Your task to perform on an android device: turn on bluetooth scan Image 0: 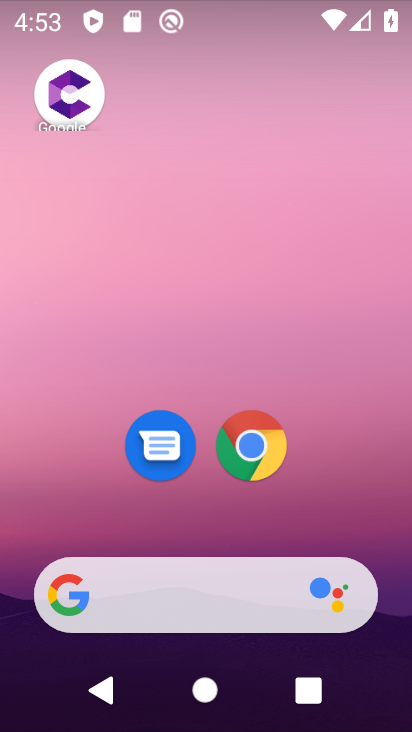
Step 0: drag from (362, 569) to (116, 45)
Your task to perform on an android device: turn on bluetooth scan Image 1: 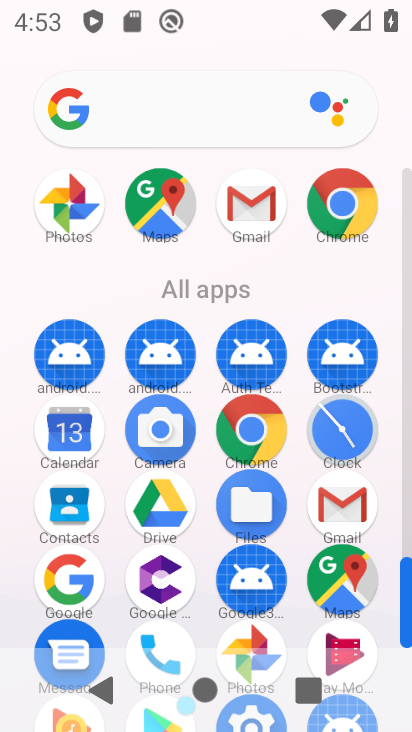
Step 1: drag from (293, 457) to (291, 184)
Your task to perform on an android device: turn on bluetooth scan Image 2: 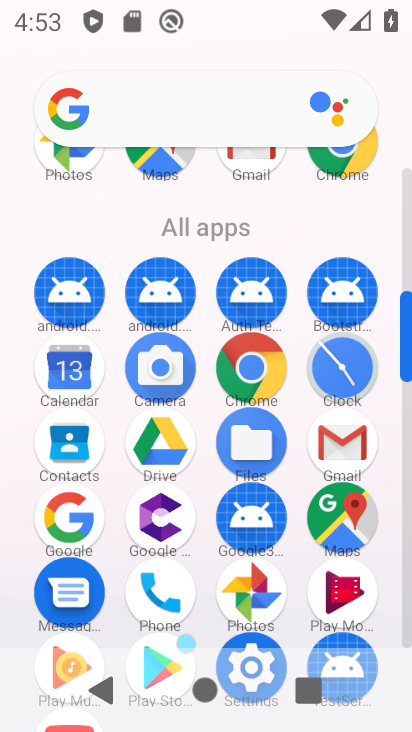
Step 2: drag from (294, 349) to (350, 3)
Your task to perform on an android device: turn on bluetooth scan Image 3: 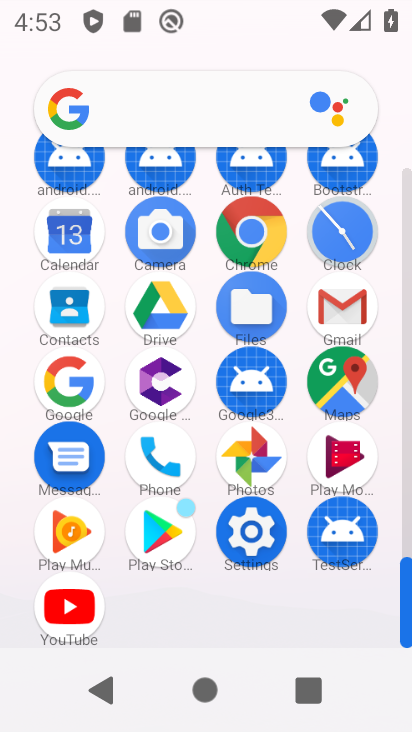
Step 3: drag from (320, 278) to (309, 180)
Your task to perform on an android device: turn on bluetooth scan Image 4: 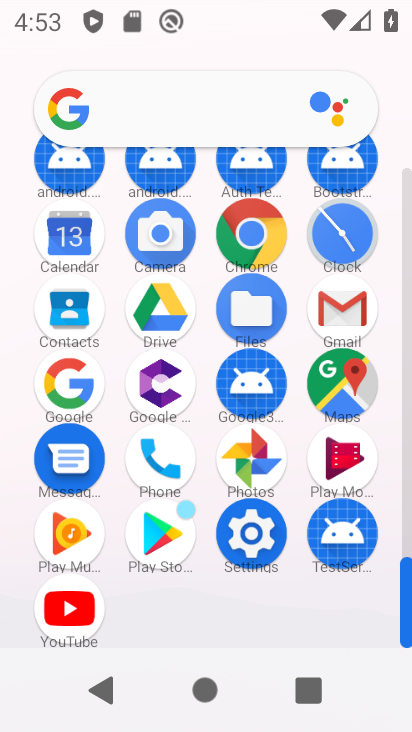
Step 4: click (250, 537)
Your task to perform on an android device: turn on bluetooth scan Image 5: 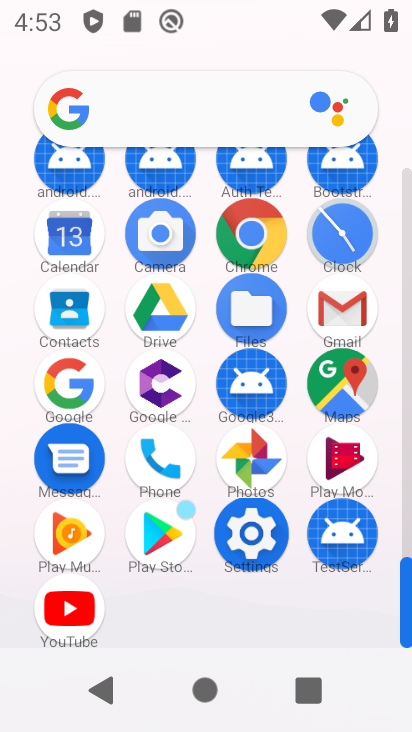
Step 5: click (250, 537)
Your task to perform on an android device: turn on bluetooth scan Image 6: 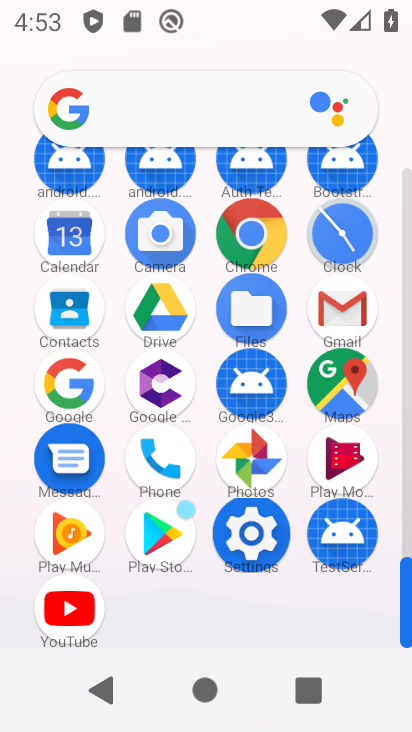
Step 6: click (251, 536)
Your task to perform on an android device: turn on bluetooth scan Image 7: 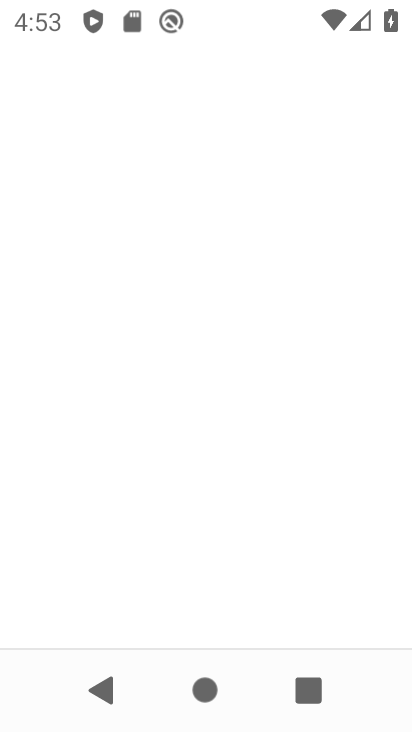
Step 7: click (251, 536)
Your task to perform on an android device: turn on bluetooth scan Image 8: 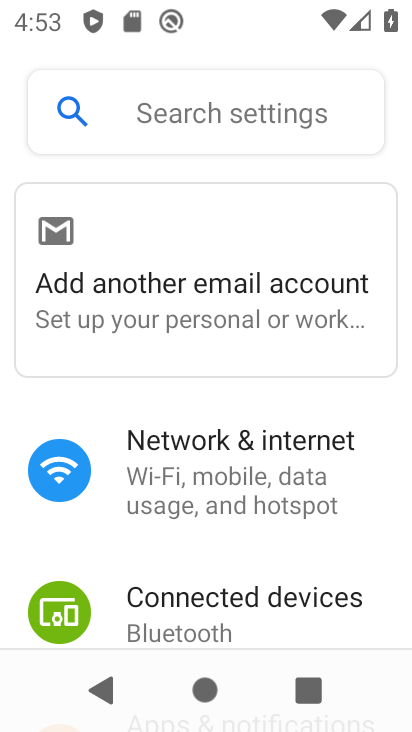
Step 8: drag from (213, 508) to (149, 253)
Your task to perform on an android device: turn on bluetooth scan Image 9: 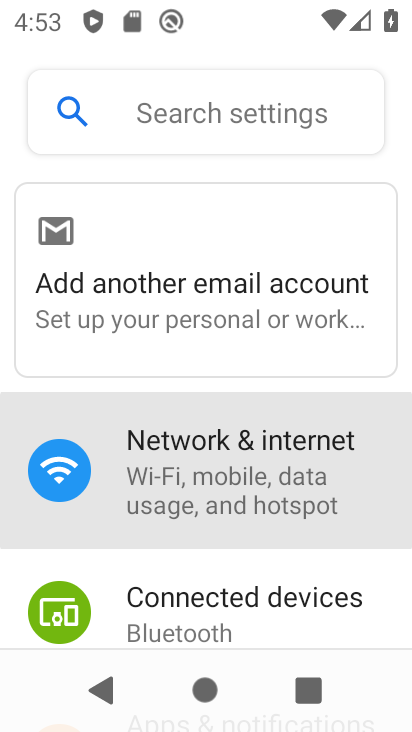
Step 9: drag from (194, 446) to (174, 121)
Your task to perform on an android device: turn on bluetooth scan Image 10: 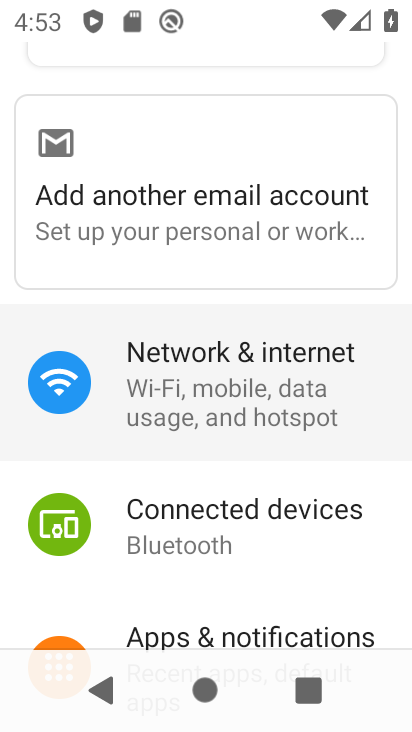
Step 10: drag from (215, 428) to (215, 297)
Your task to perform on an android device: turn on bluetooth scan Image 11: 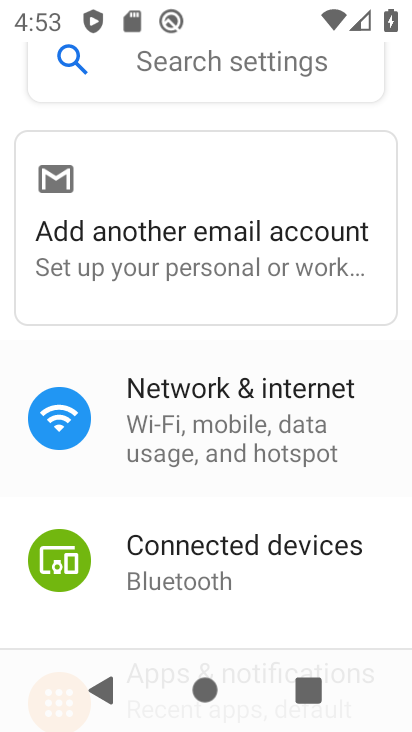
Step 11: drag from (270, 476) to (211, 241)
Your task to perform on an android device: turn on bluetooth scan Image 12: 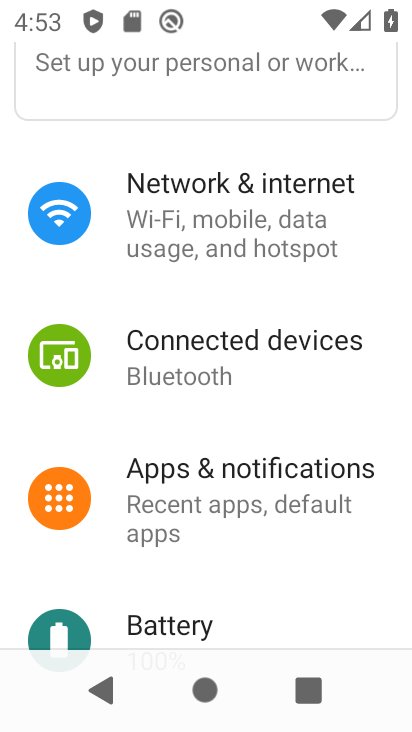
Step 12: drag from (249, 484) to (237, 270)
Your task to perform on an android device: turn on bluetooth scan Image 13: 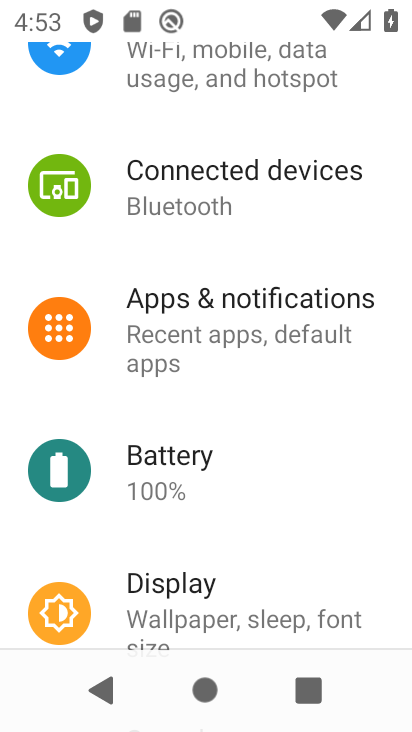
Step 13: drag from (186, 581) to (146, 198)
Your task to perform on an android device: turn on bluetooth scan Image 14: 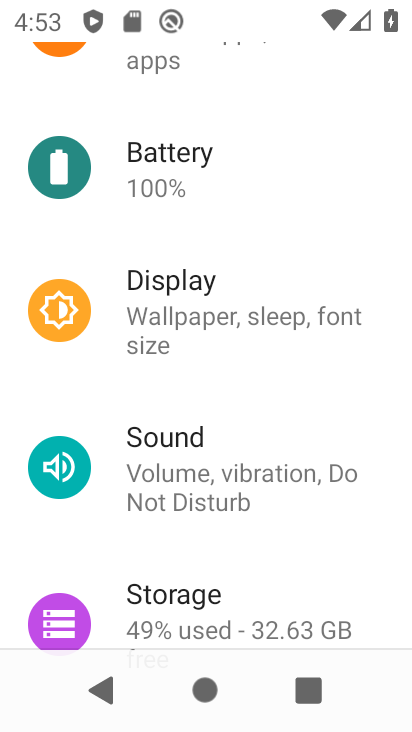
Step 14: drag from (220, 447) to (234, 117)
Your task to perform on an android device: turn on bluetooth scan Image 15: 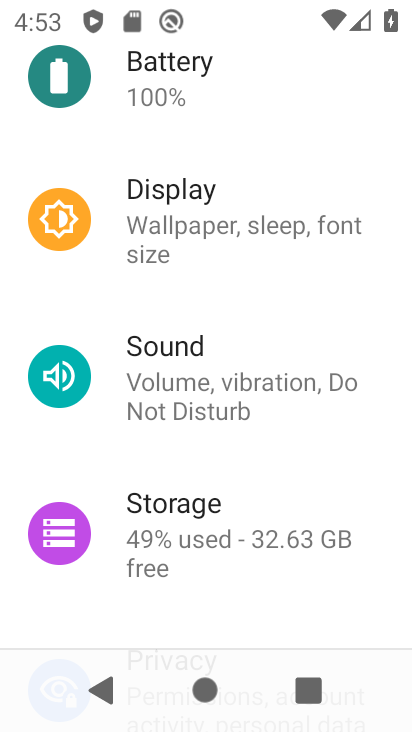
Step 15: drag from (243, 325) to (248, 75)
Your task to perform on an android device: turn on bluetooth scan Image 16: 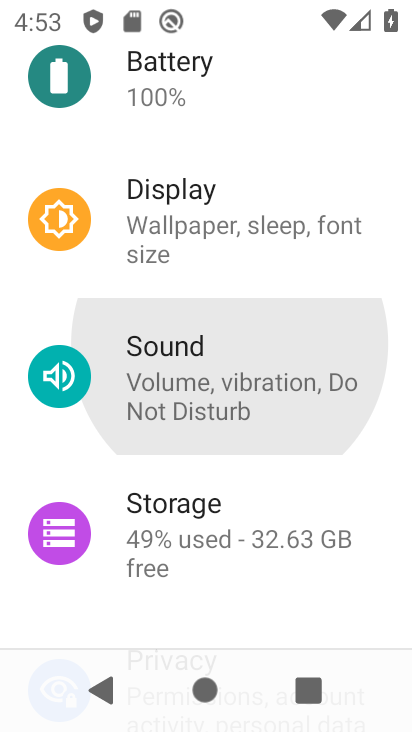
Step 16: drag from (238, 511) to (238, 66)
Your task to perform on an android device: turn on bluetooth scan Image 17: 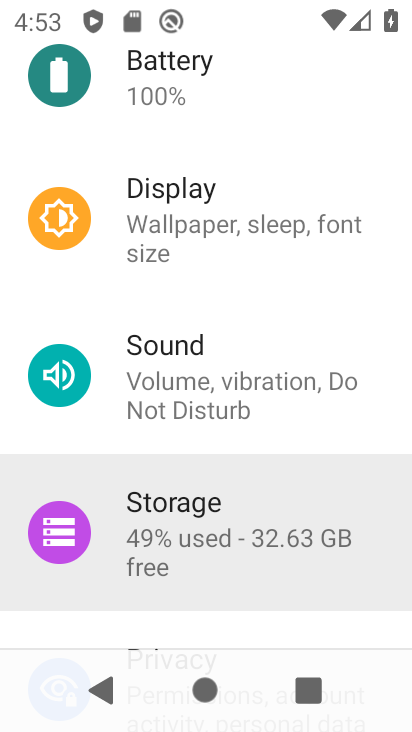
Step 17: drag from (198, 498) to (165, 0)
Your task to perform on an android device: turn on bluetooth scan Image 18: 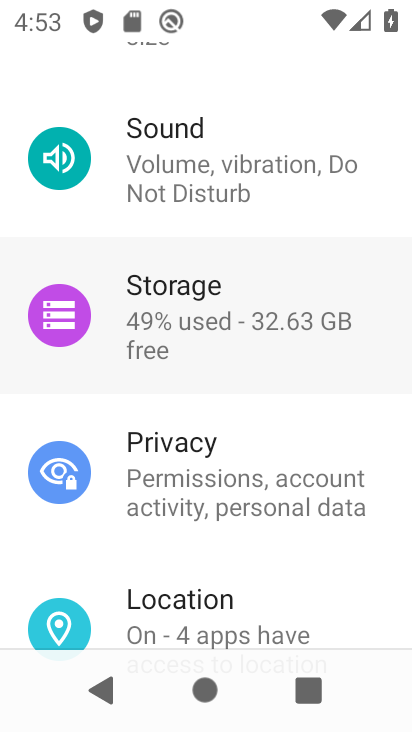
Step 18: drag from (132, 491) to (105, 4)
Your task to perform on an android device: turn on bluetooth scan Image 19: 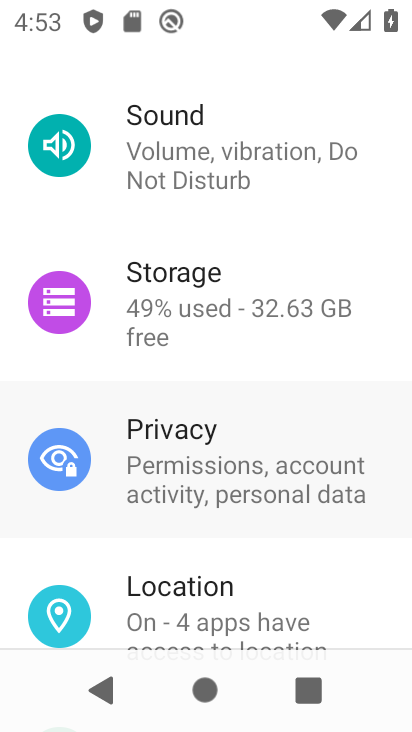
Step 19: drag from (203, 301) to (200, 80)
Your task to perform on an android device: turn on bluetooth scan Image 20: 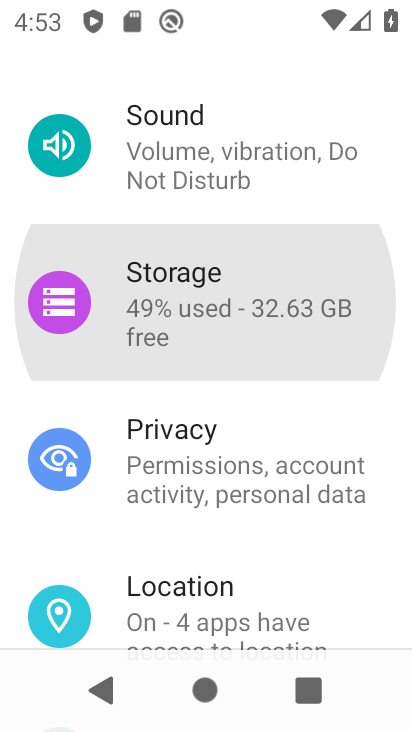
Step 20: drag from (203, 549) to (230, 167)
Your task to perform on an android device: turn on bluetooth scan Image 21: 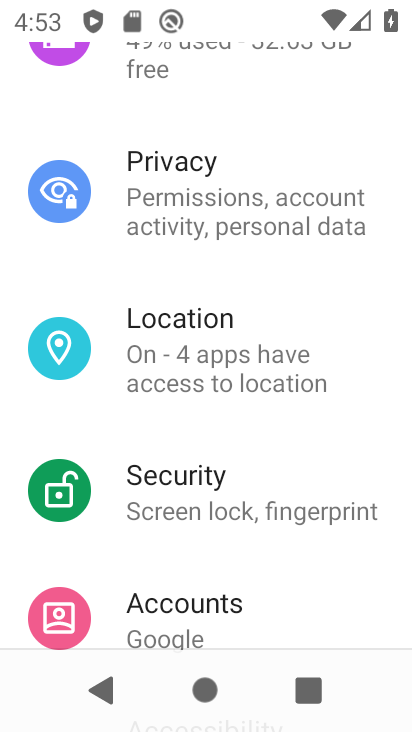
Step 21: drag from (220, 357) to (213, 166)
Your task to perform on an android device: turn on bluetooth scan Image 22: 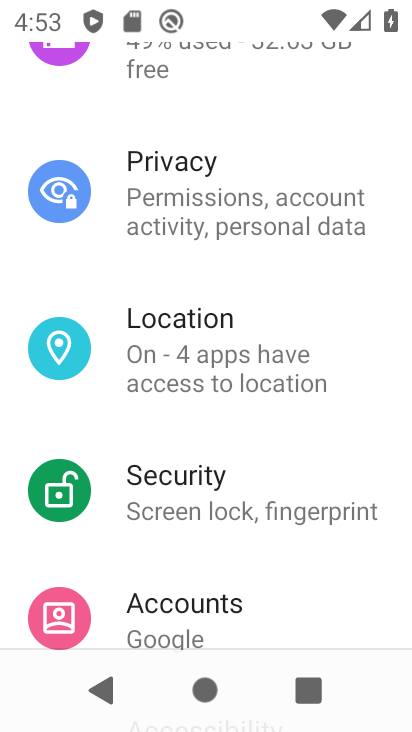
Step 22: drag from (206, 432) to (175, 224)
Your task to perform on an android device: turn on bluetooth scan Image 23: 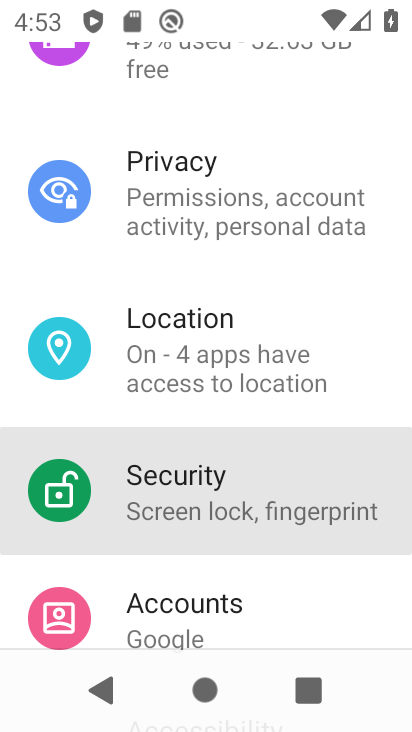
Step 23: drag from (167, 561) to (161, 227)
Your task to perform on an android device: turn on bluetooth scan Image 24: 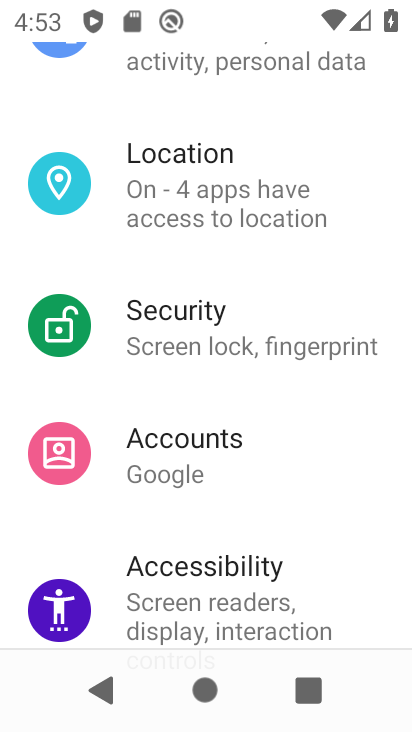
Step 24: click (197, 193)
Your task to perform on an android device: turn on bluetooth scan Image 25: 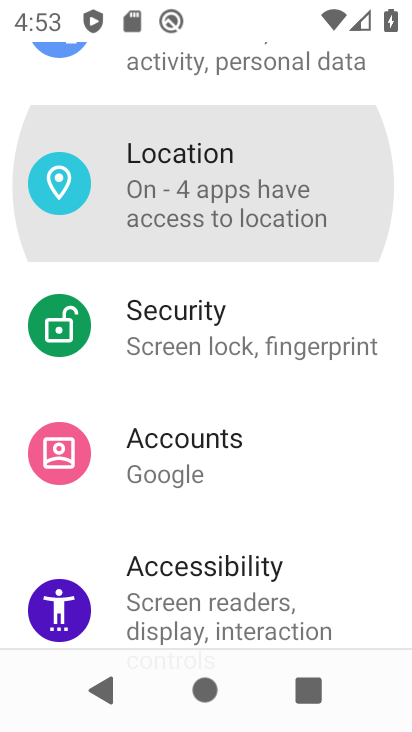
Step 25: click (197, 193)
Your task to perform on an android device: turn on bluetooth scan Image 26: 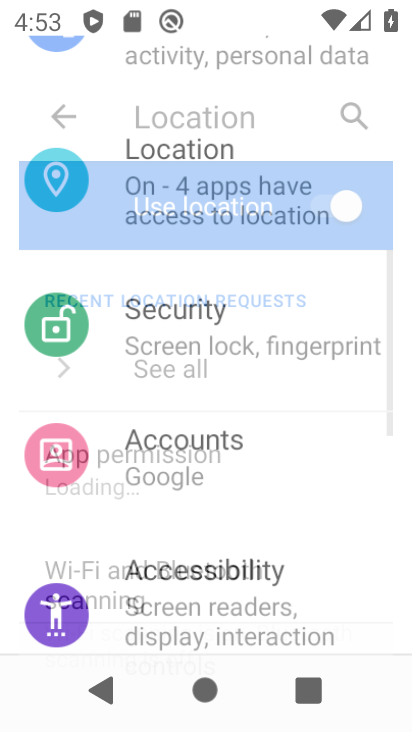
Step 26: click (197, 193)
Your task to perform on an android device: turn on bluetooth scan Image 27: 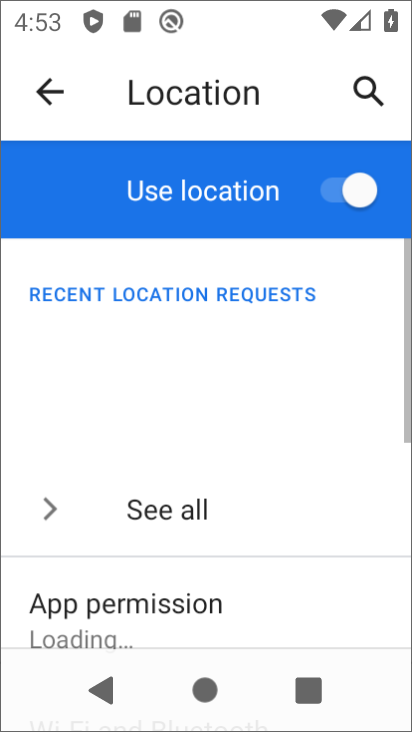
Step 27: click (197, 193)
Your task to perform on an android device: turn on bluetooth scan Image 28: 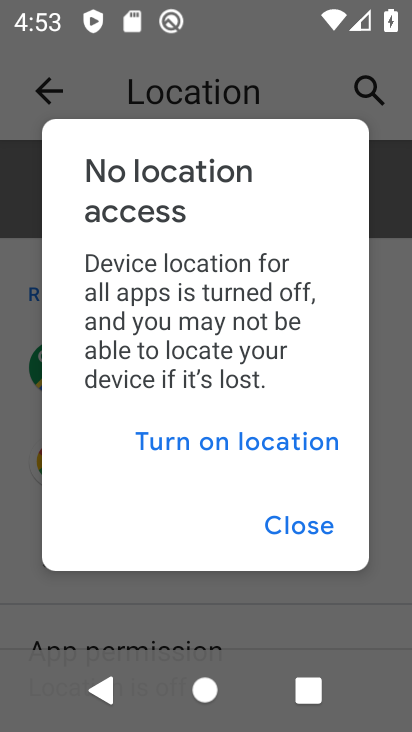
Step 28: drag from (194, 417) to (153, 166)
Your task to perform on an android device: turn on bluetooth scan Image 29: 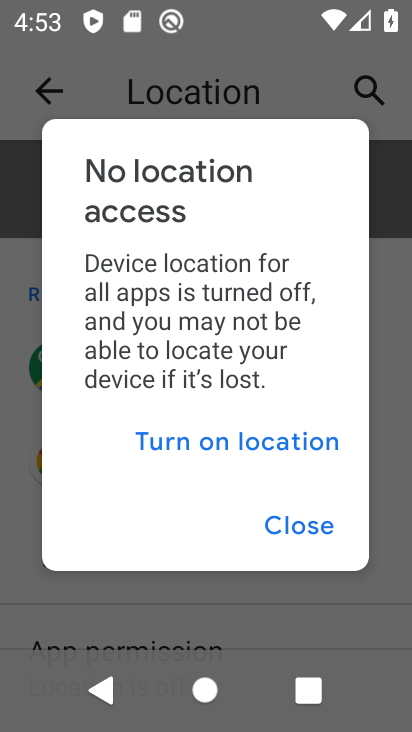
Step 29: click (306, 522)
Your task to perform on an android device: turn on bluetooth scan Image 30: 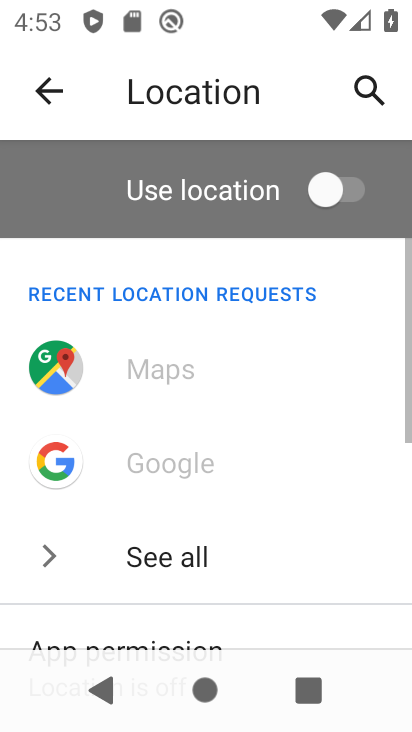
Step 30: drag from (235, 513) to (196, 222)
Your task to perform on an android device: turn on bluetooth scan Image 31: 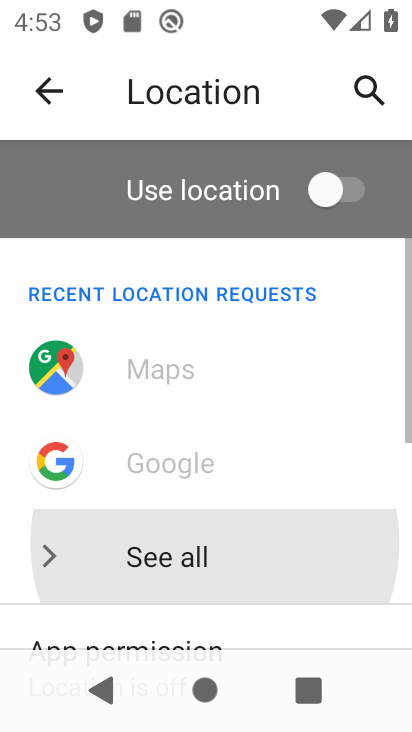
Step 31: drag from (231, 450) to (200, 190)
Your task to perform on an android device: turn on bluetooth scan Image 32: 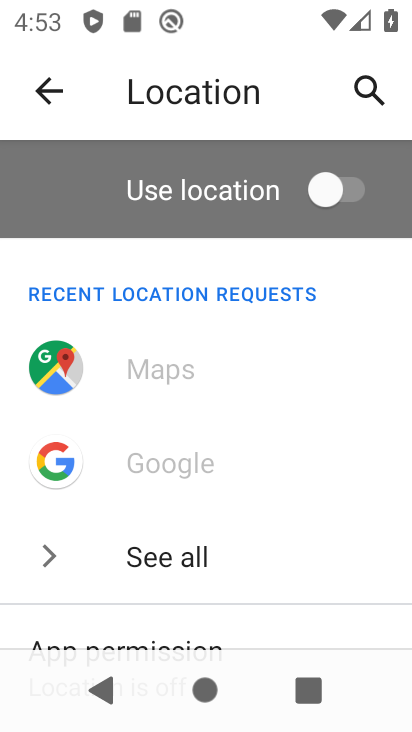
Step 32: drag from (265, 405) to (224, 164)
Your task to perform on an android device: turn on bluetooth scan Image 33: 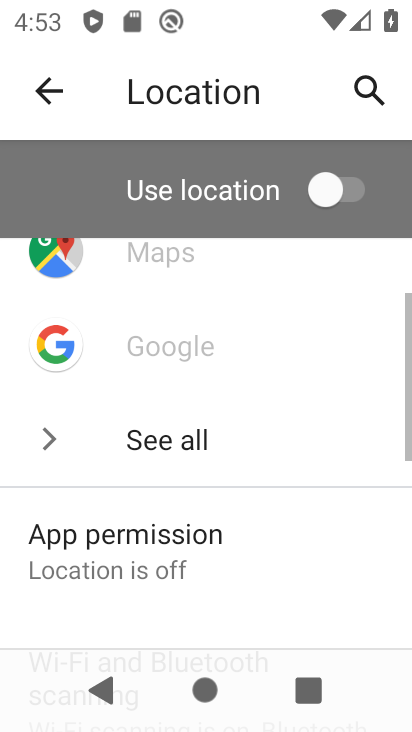
Step 33: drag from (202, 495) to (137, 65)
Your task to perform on an android device: turn on bluetooth scan Image 34: 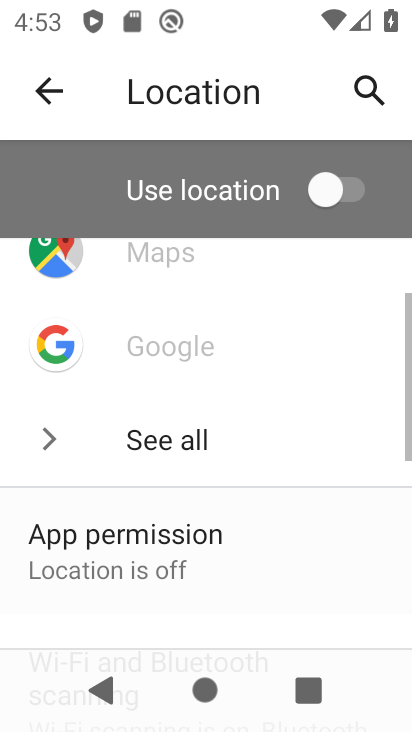
Step 34: drag from (136, 478) to (145, 171)
Your task to perform on an android device: turn on bluetooth scan Image 35: 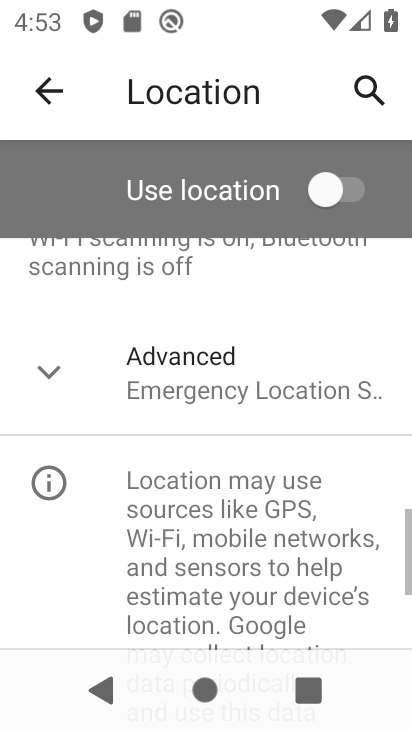
Step 35: drag from (187, 493) to (185, 129)
Your task to perform on an android device: turn on bluetooth scan Image 36: 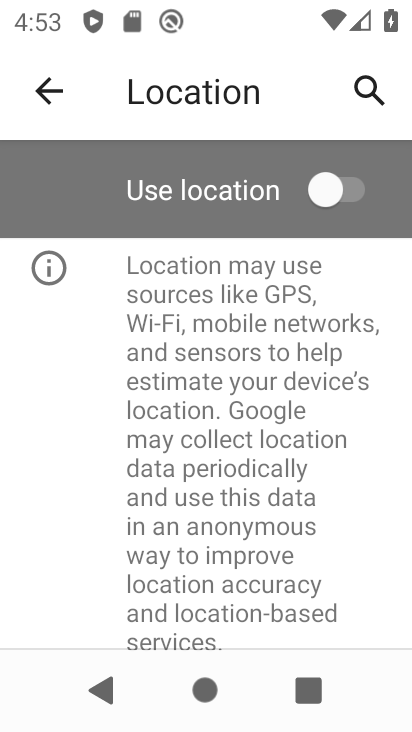
Step 36: drag from (208, 369) to (261, 646)
Your task to perform on an android device: turn on bluetooth scan Image 37: 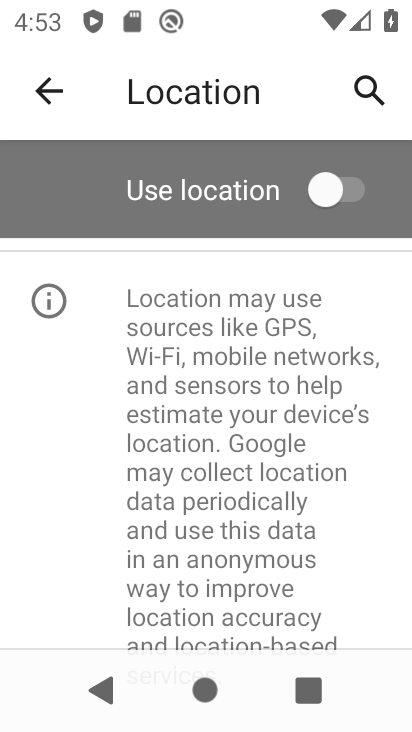
Step 37: click (221, 641)
Your task to perform on an android device: turn on bluetooth scan Image 38: 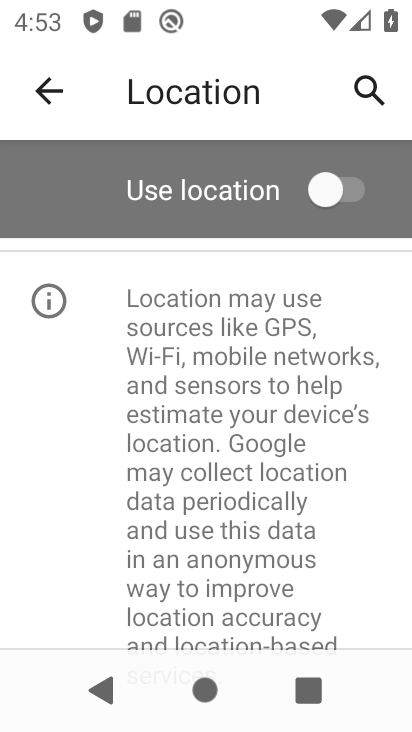
Step 38: drag from (200, 286) to (216, 653)
Your task to perform on an android device: turn on bluetooth scan Image 39: 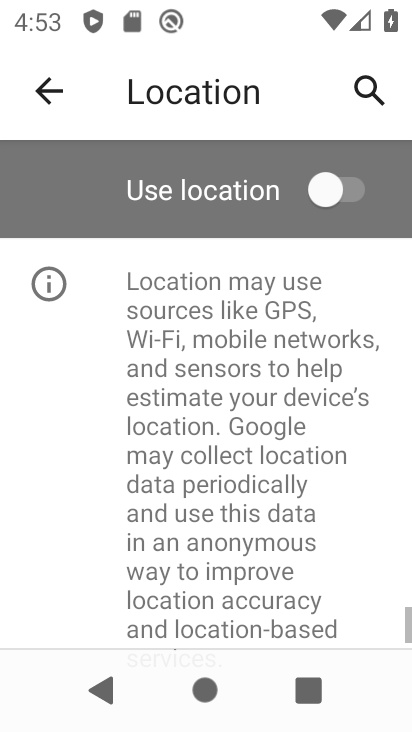
Step 39: drag from (243, 335) to (244, 609)
Your task to perform on an android device: turn on bluetooth scan Image 40: 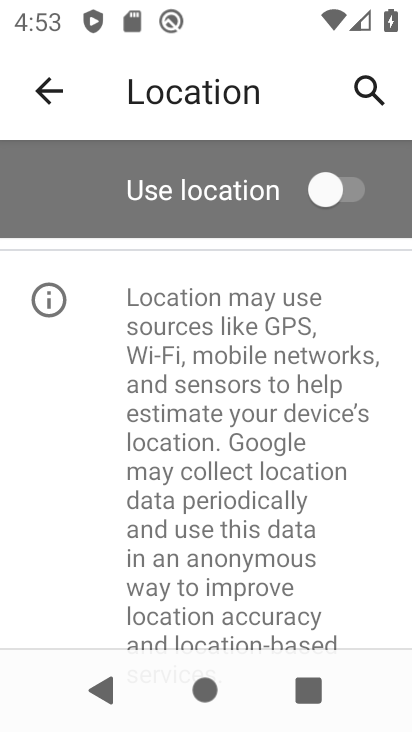
Step 40: drag from (222, 530) to (259, 609)
Your task to perform on an android device: turn on bluetooth scan Image 41: 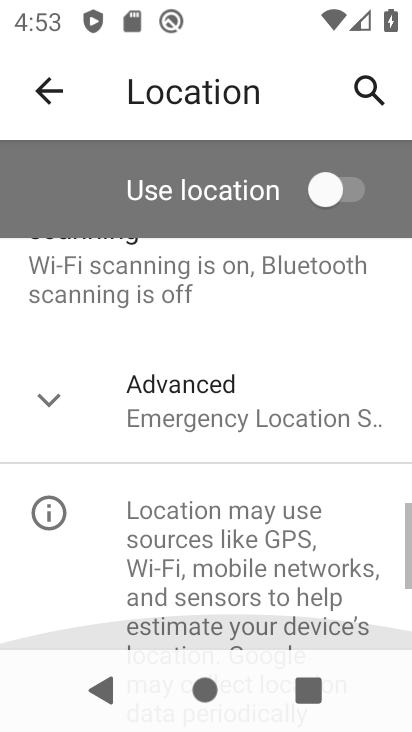
Step 41: drag from (239, 372) to (267, 659)
Your task to perform on an android device: turn on bluetooth scan Image 42: 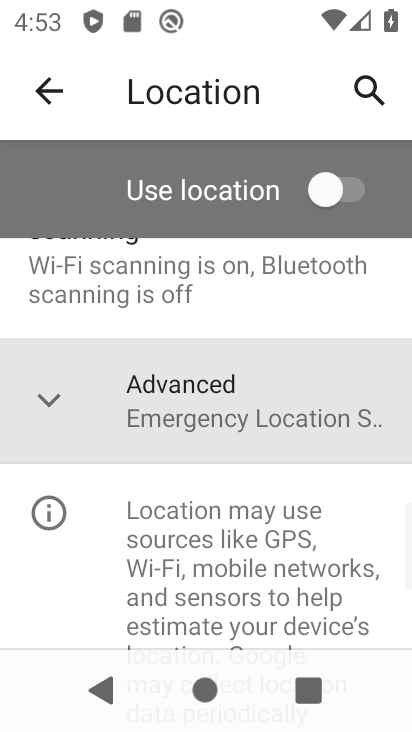
Step 42: drag from (245, 368) to (281, 622)
Your task to perform on an android device: turn on bluetooth scan Image 43: 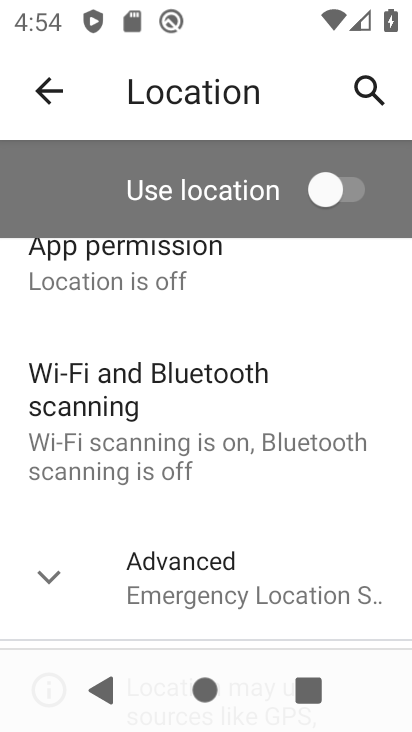
Step 43: click (120, 419)
Your task to perform on an android device: turn on bluetooth scan Image 44: 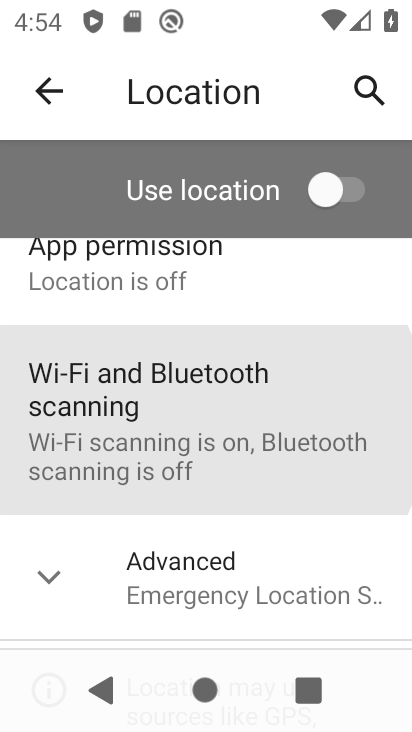
Step 44: click (129, 423)
Your task to perform on an android device: turn on bluetooth scan Image 45: 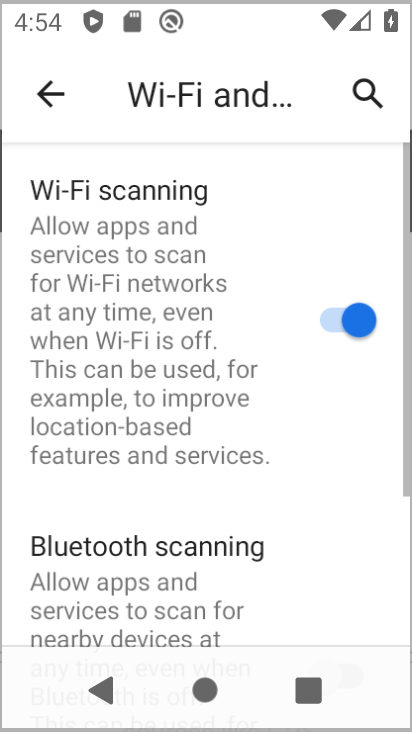
Step 45: click (129, 425)
Your task to perform on an android device: turn on bluetooth scan Image 46: 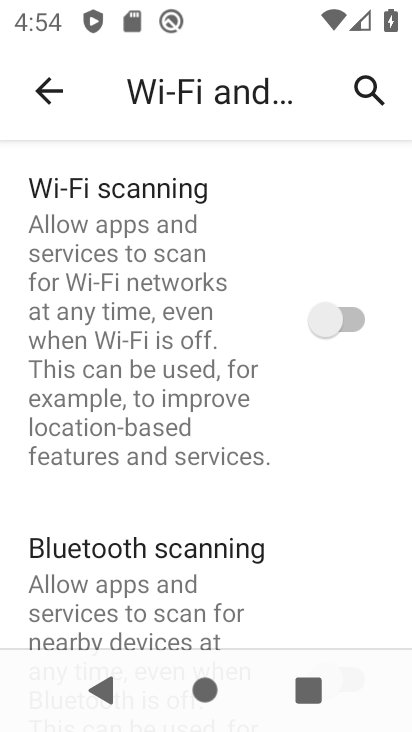
Step 46: click (339, 328)
Your task to perform on an android device: turn on bluetooth scan Image 47: 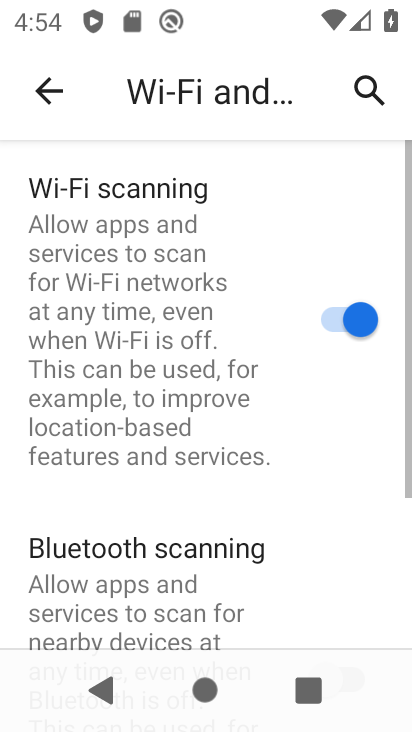
Step 47: drag from (210, 561) to (188, 256)
Your task to perform on an android device: turn on bluetooth scan Image 48: 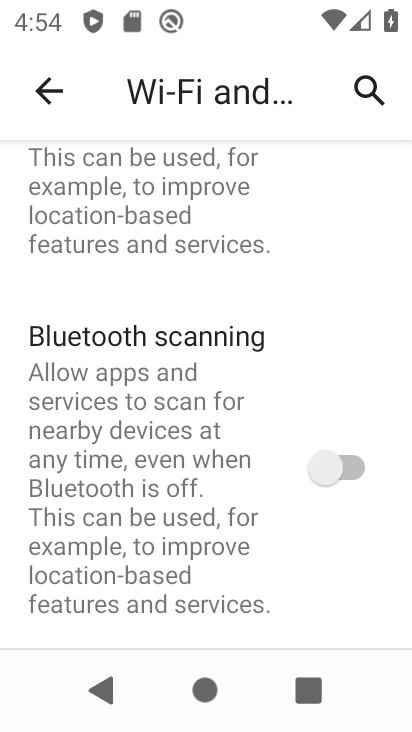
Step 48: click (331, 464)
Your task to perform on an android device: turn on bluetooth scan Image 49: 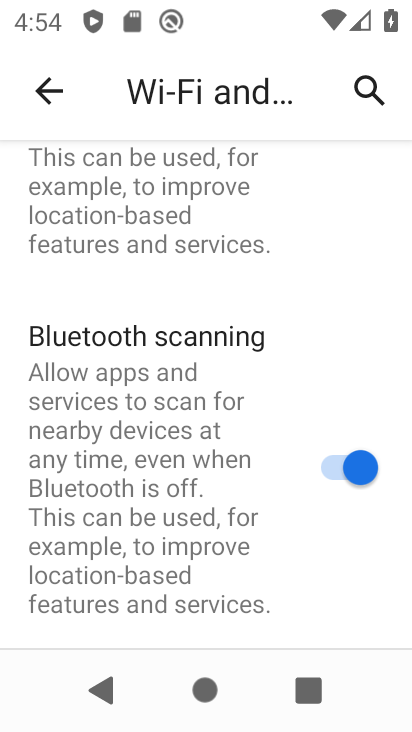
Step 49: task complete